Your task to perform on an android device: turn on translation in the chrome app Image 0: 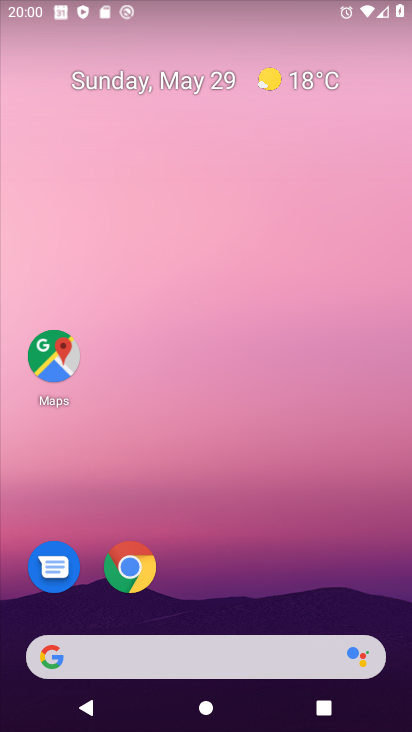
Step 0: click (136, 569)
Your task to perform on an android device: turn on translation in the chrome app Image 1: 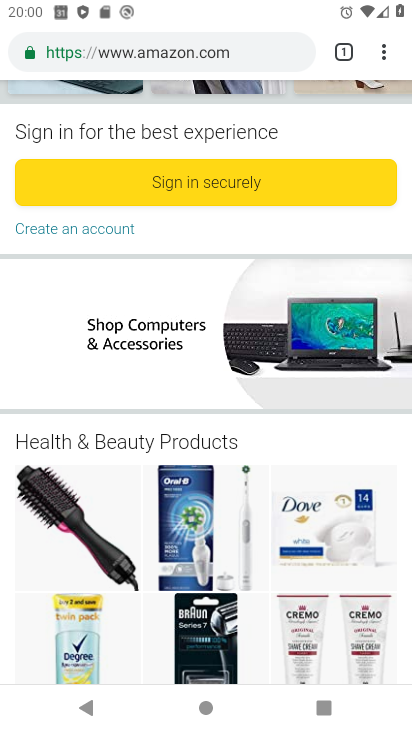
Step 1: click (386, 48)
Your task to perform on an android device: turn on translation in the chrome app Image 2: 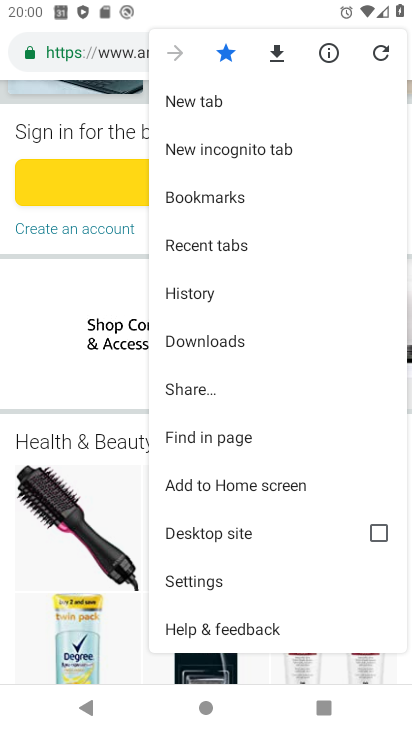
Step 2: drag from (292, 602) to (308, 204)
Your task to perform on an android device: turn on translation in the chrome app Image 3: 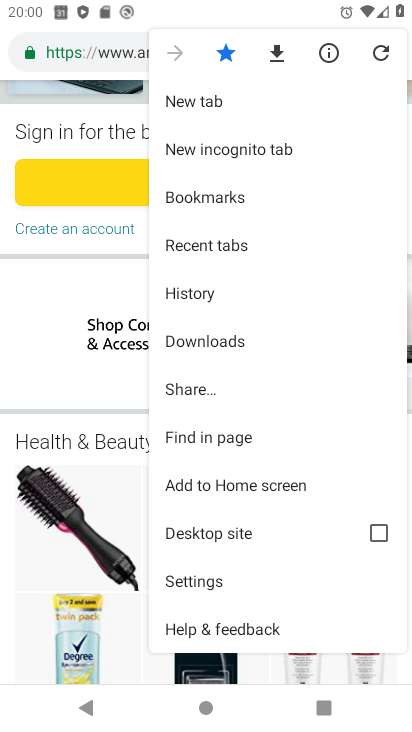
Step 3: click (179, 575)
Your task to perform on an android device: turn on translation in the chrome app Image 4: 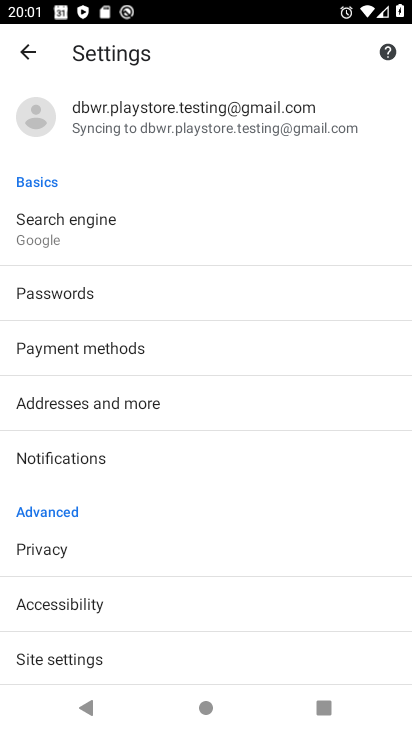
Step 4: drag from (204, 640) to (216, 339)
Your task to perform on an android device: turn on translation in the chrome app Image 5: 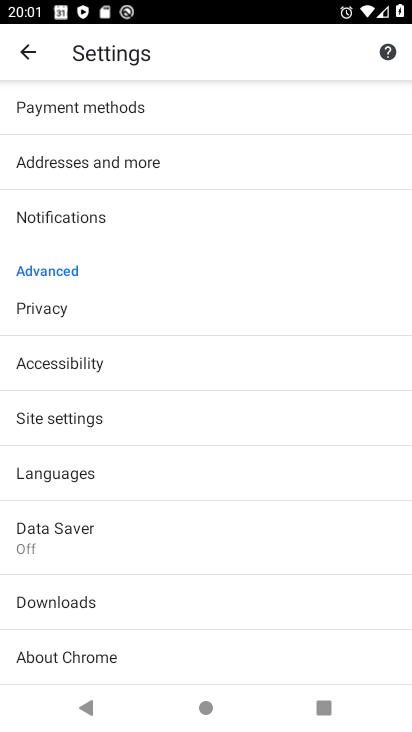
Step 5: click (31, 475)
Your task to perform on an android device: turn on translation in the chrome app Image 6: 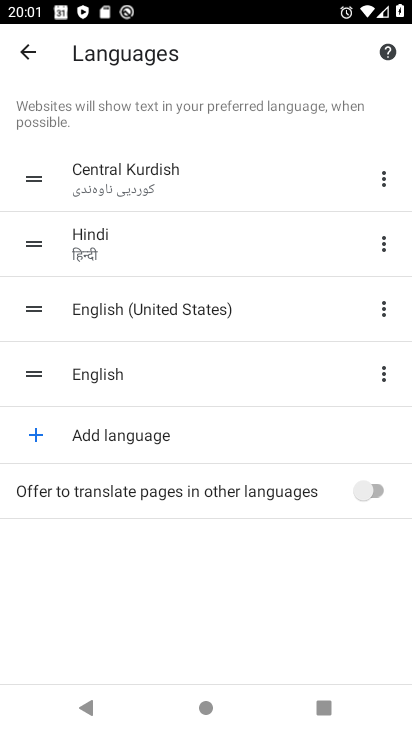
Step 6: click (369, 491)
Your task to perform on an android device: turn on translation in the chrome app Image 7: 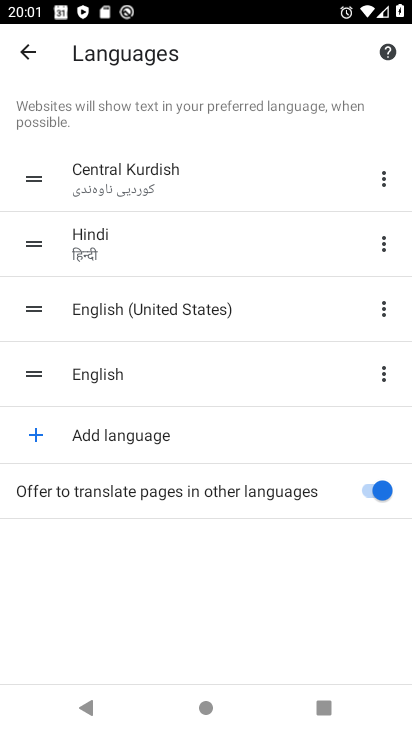
Step 7: task complete